Your task to perform on an android device: Open my contact list Image 0: 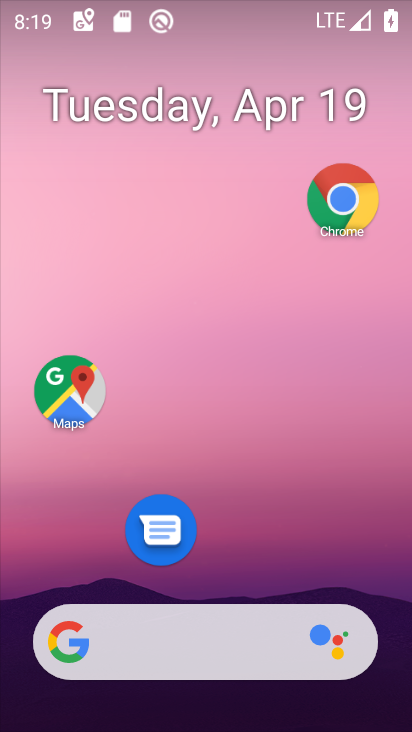
Step 0: drag from (399, 420) to (306, 133)
Your task to perform on an android device: Open my contact list Image 1: 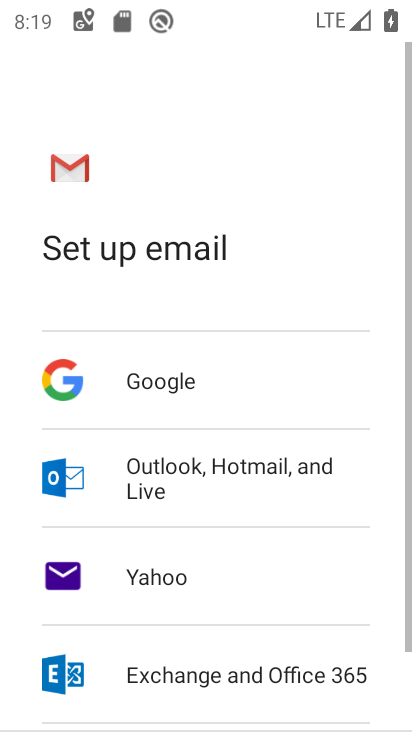
Step 1: drag from (186, 633) to (245, 212)
Your task to perform on an android device: Open my contact list Image 2: 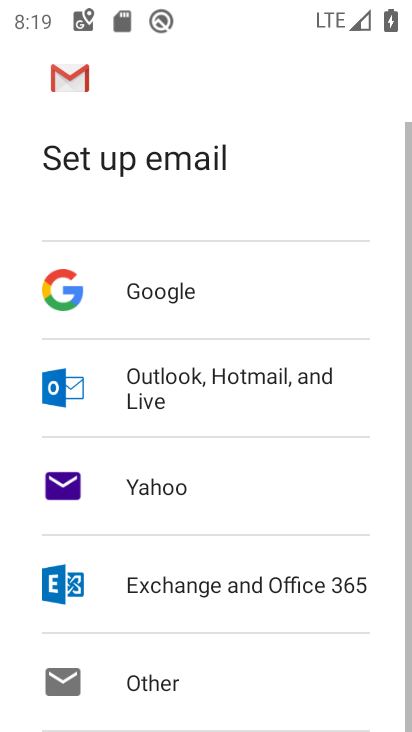
Step 2: press home button
Your task to perform on an android device: Open my contact list Image 3: 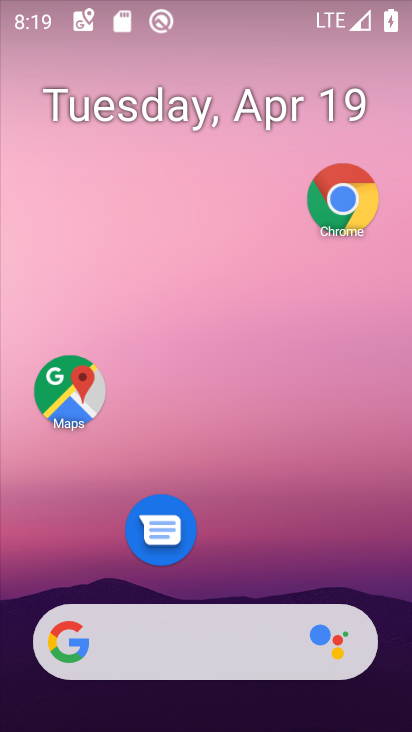
Step 3: drag from (215, 569) to (202, 256)
Your task to perform on an android device: Open my contact list Image 4: 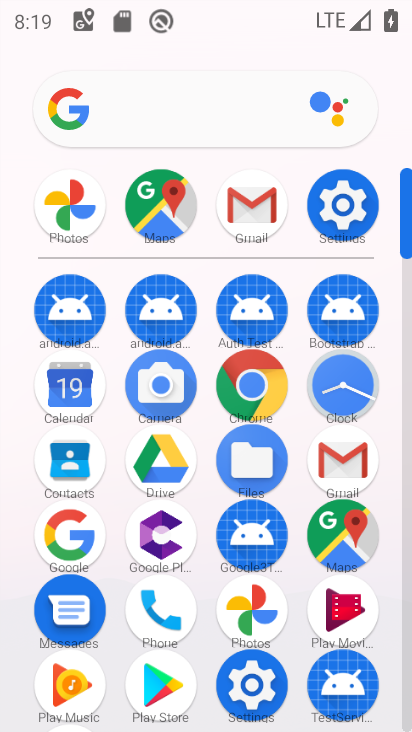
Step 4: click (61, 464)
Your task to perform on an android device: Open my contact list Image 5: 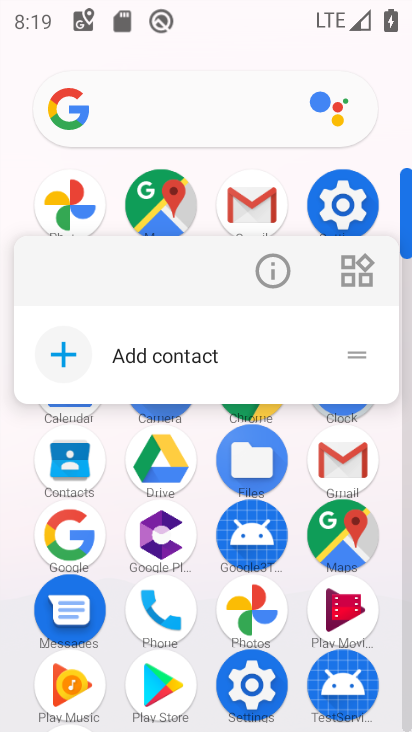
Step 5: click (276, 262)
Your task to perform on an android device: Open my contact list Image 6: 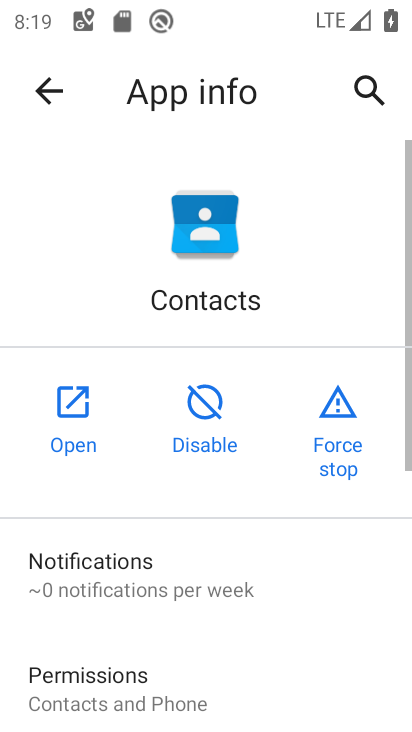
Step 6: click (63, 405)
Your task to perform on an android device: Open my contact list Image 7: 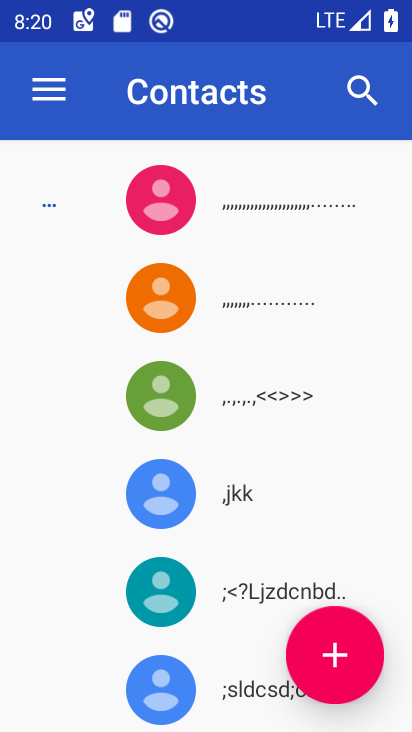
Step 7: click (339, 652)
Your task to perform on an android device: Open my contact list Image 8: 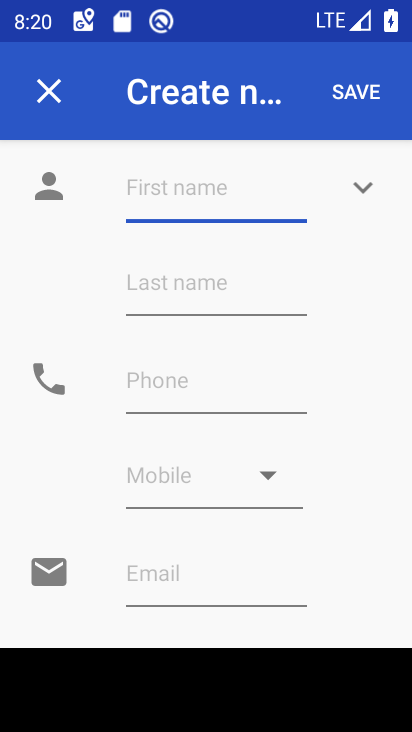
Step 8: click (205, 214)
Your task to perform on an android device: Open my contact list Image 9: 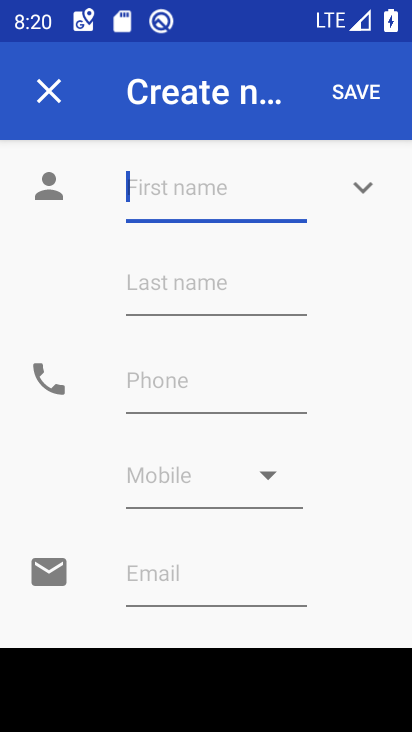
Step 9: click (29, 58)
Your task to perform on an android device: Open my contact list Image 10: 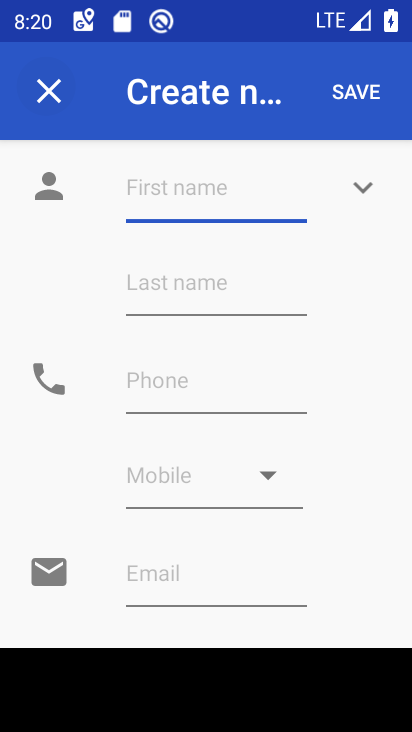
Step 10: click (37, 76)
Your task to perform on an android device: Open my contact list Image 11: 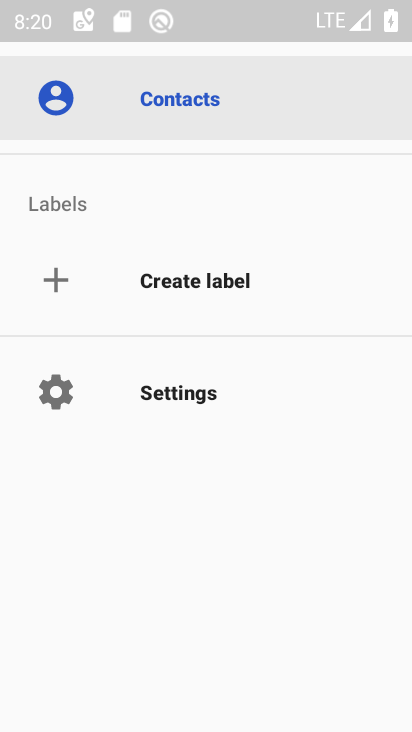
Step 11: click (190, 392)
Your task to perform on an android device: Open my contact list Image 12: 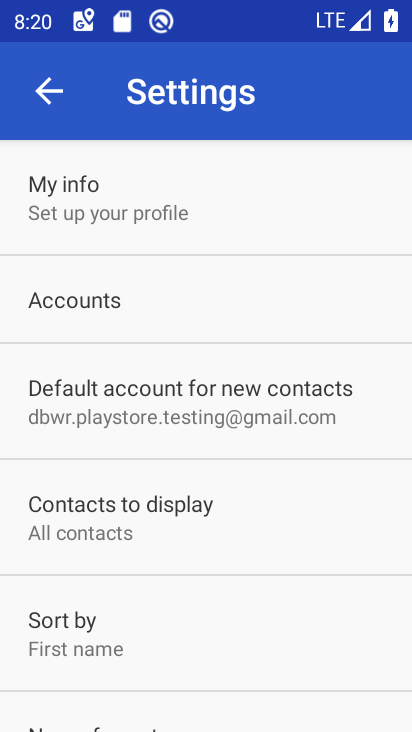
Step 12: click (58, 89)
Your task to perform on an android device: Open my contact list Image 13: 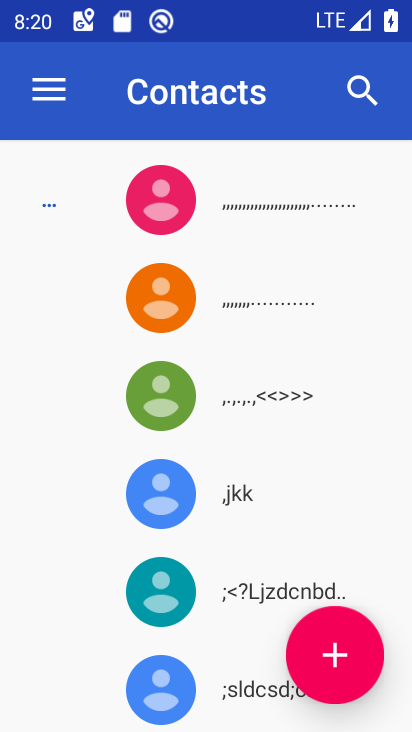
Step 13: task complete